Your task to perform on an android device: Search for Mexican restaurants on Maps Image 0: 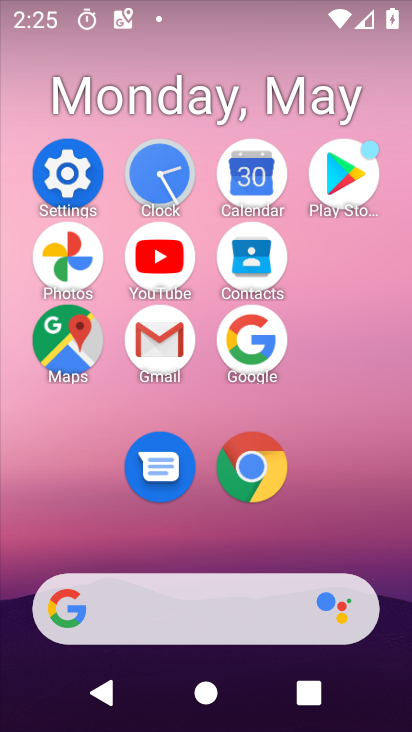
Step 0: click (82, 363)
Your task to perform on an android device: Search for Mexican restaurants on Maps Image 1: 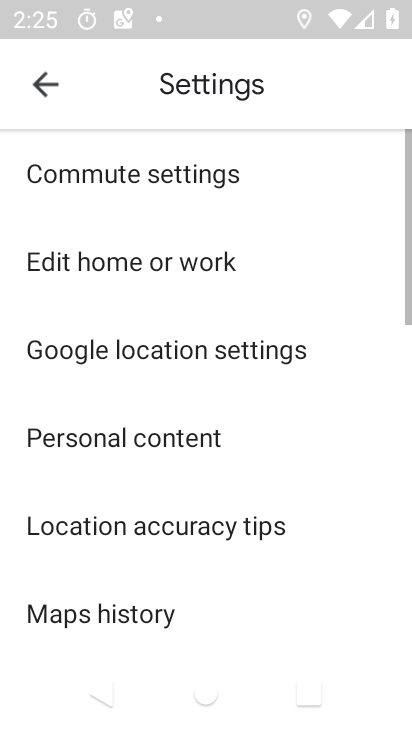
Step 1: click (57, 88)
Your task to perform on an android device: Search for Mexican restaurants on Maps Image 2: 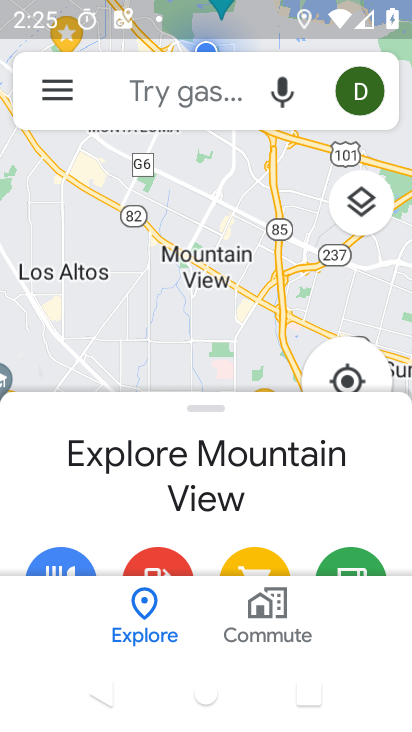
Step 2: click (160, 96)
Your task to perform on an android device: Search for Mexican restaurants on Maps Image 3: 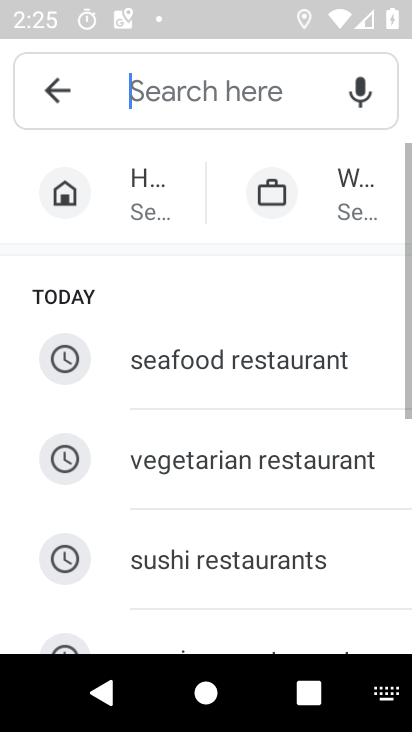
Step 3: drag from (253, 527) to (209, 147)
Your task to perform on an android device: Search for Mexican restaurants on Maps Image 4: 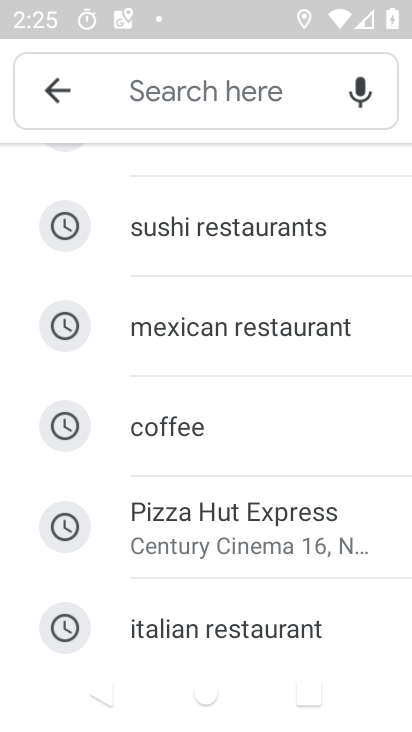
Step 4: click (242, 290)
Your task to perform on an android device: Search for Mexican restaurants on Maps Image 5: 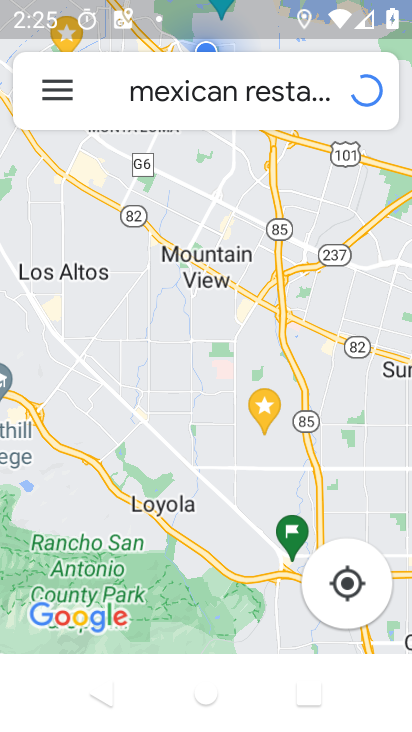
Step 5: task complete